Your task to perform on an android device: turn on wifi Image 0: 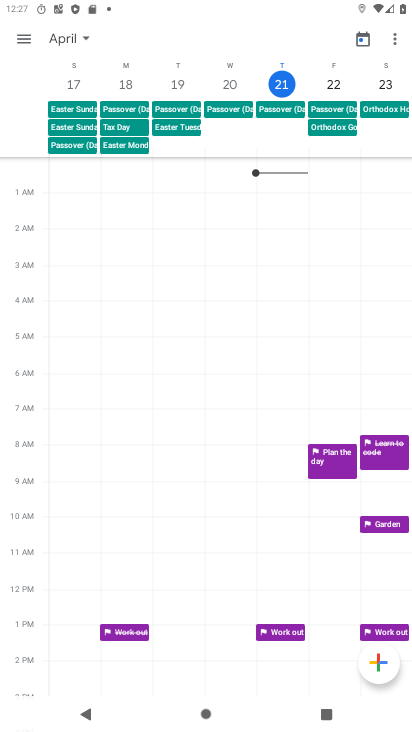
Step 0: press home button
Your task to perform on an android device: turn on wifi Image 1: 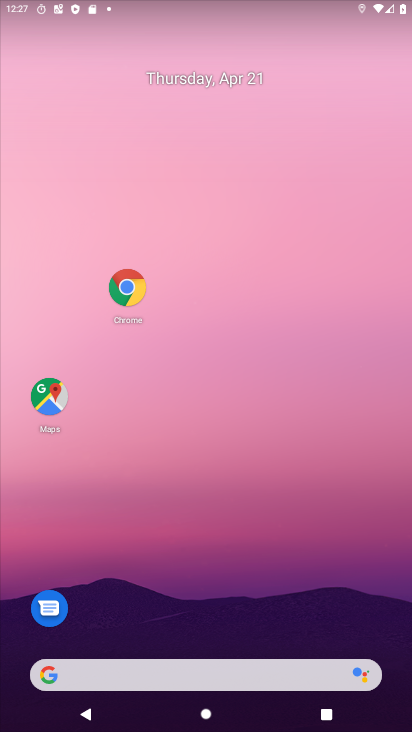
Step 1: drag from (194, 459) to (189, 84)
Your task to perform on an android device: turn on wifi Image 2: 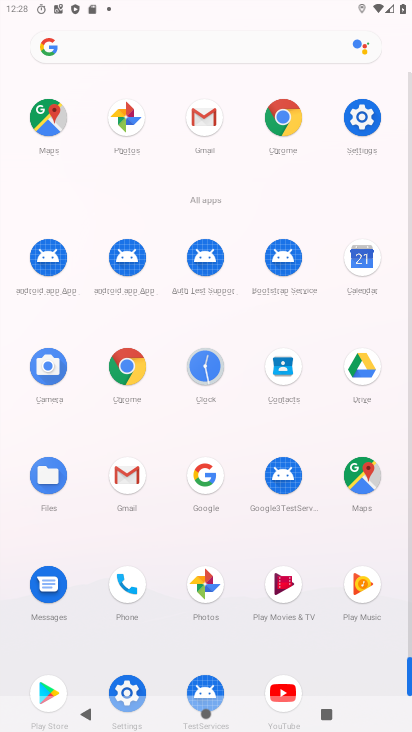
Step 2: click (357, 122)
Your task to perform on an android device: turn on wifi Image 3: 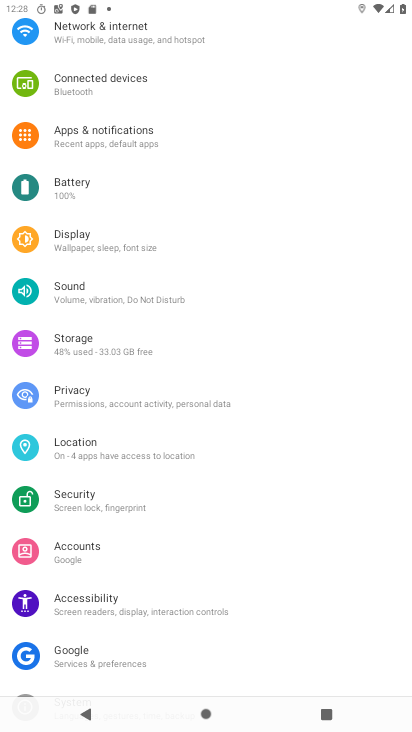
Step 3: click (82, 41)
Your task to perform on an android device: turn on wifi Image 4: 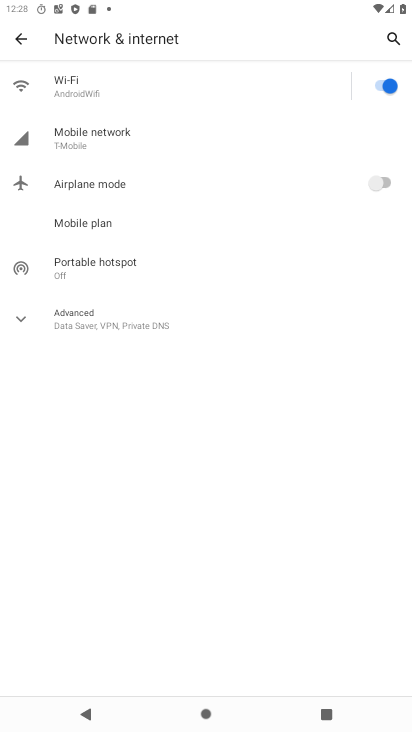
Step 4: task complete